Your task to perform on an android device: see tabs open on other devices in the chrome app Image 0: 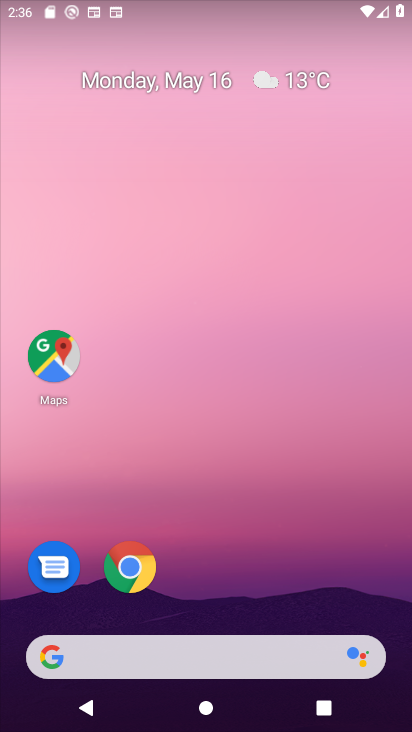
Step 0: click (123, 579)
Your task to perform on an android device: see tabs open on other devices in the chrome app Image 1: 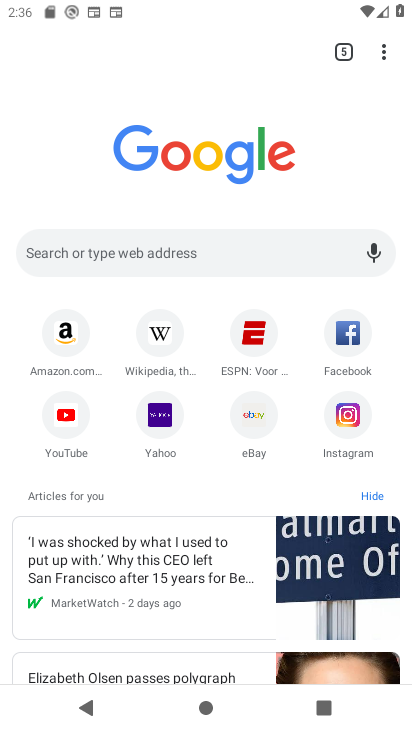
Step 1: click (403, 48)
Your task to perform on an android device: see tabs open on other devices in the chrome app Image 2: 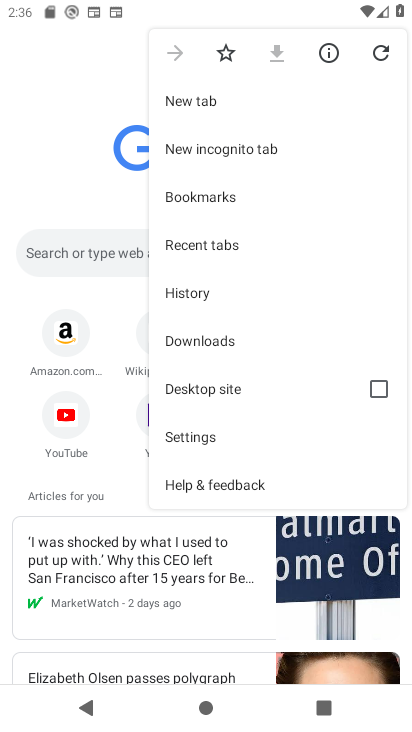
Step 2: click (224, 248)
Your task to perform on an android device: see tabs open on other devices in the chrome app Image 3: 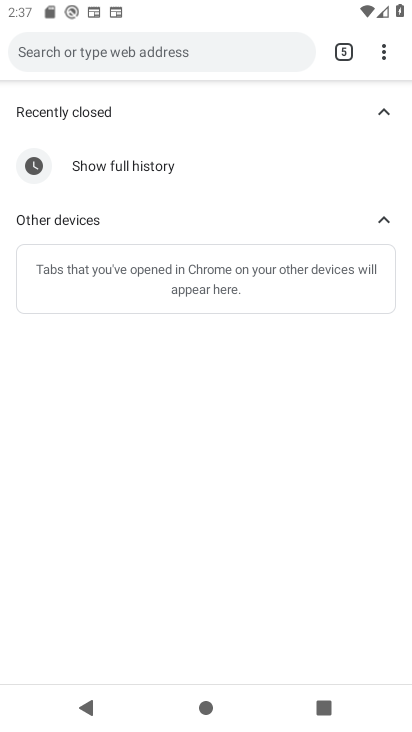
Step 3: task complete